Your task to perform on an android device: refresh tabs in the chrome app Image 0: 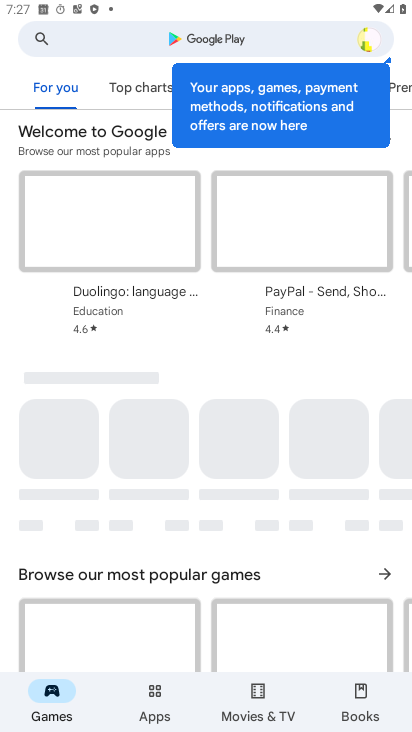
Step 0: press home button
Your task to perform on an android device: refresh tabs in the chrome app Image 1: 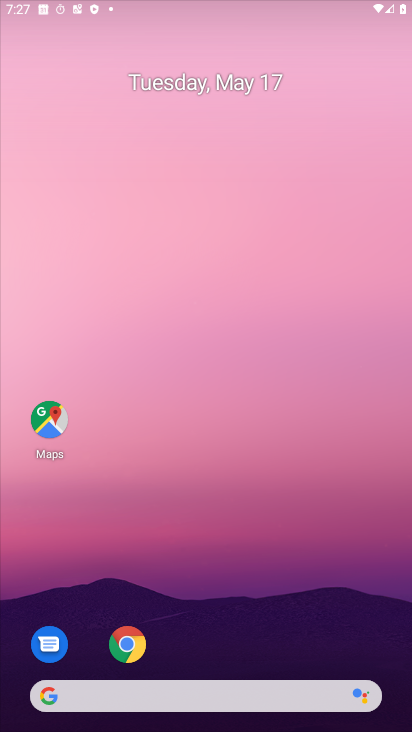
Step 1: drag from (315, 602) to (219, 28)
Your task to perform on an android device: refresh tabs in the chrome app Image 2: 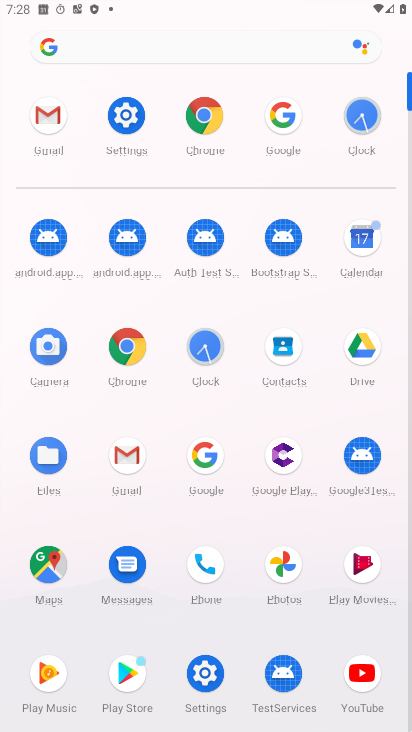
Step 2: click (208, 101)
Your task to perform on an android device: refresh tabs in the chrome app Image 3: 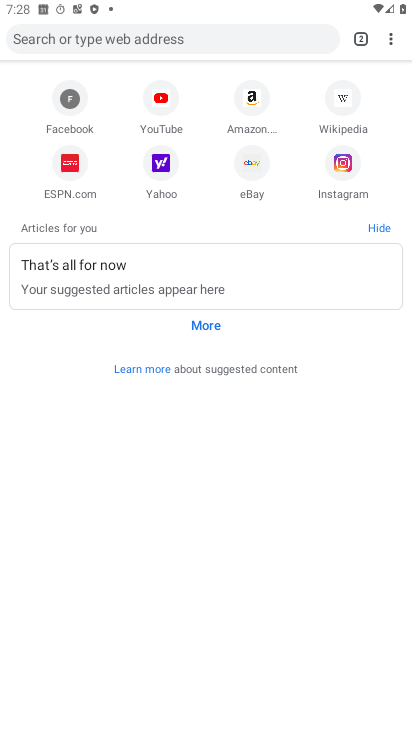
Step 3: click (393, 33)
Your task to perform on an android device: refresh tabs in the chrome app Image 4: 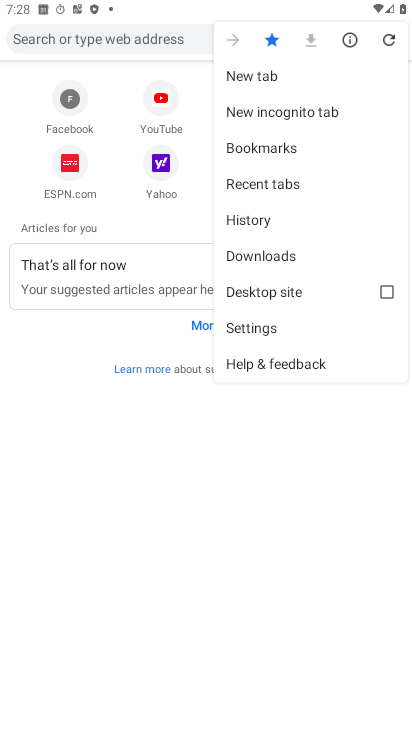
Step 4: click (383, 43)
Your task to perform on an android device: refresh tabs in the chrome app Image 5: 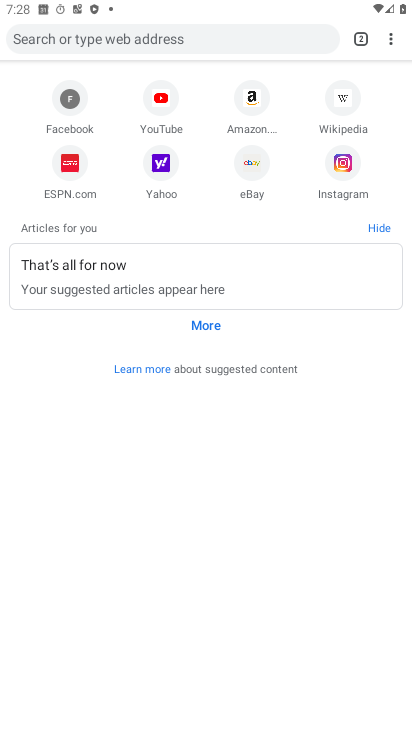
Step 5: task complete